Your task to perform on an android device: change the upload size in google photos Image 0: 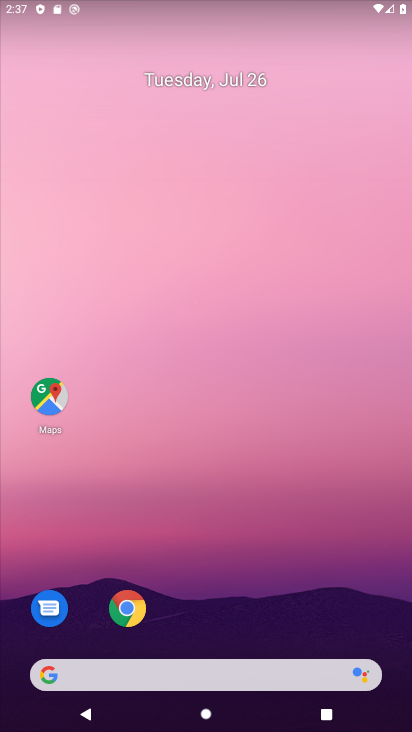
Step 0: drag from (280, 560) to (321, 5)
Your task to perform on an android device: change the upload size in google photos Image 1: 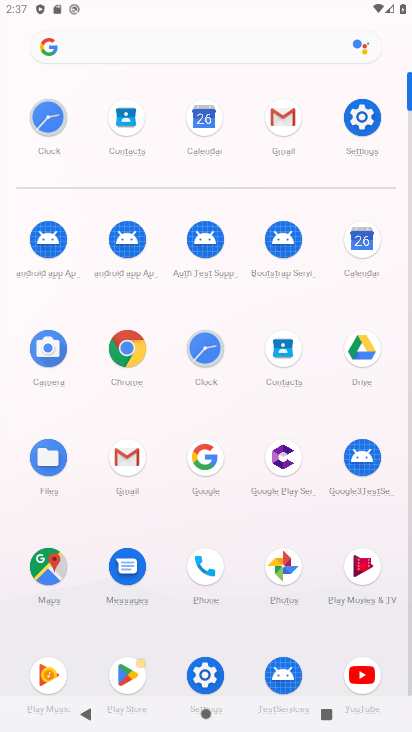
Step 1: click (288, 574)
Your task to perform on an android device: change the upload size in google photos Image 2: 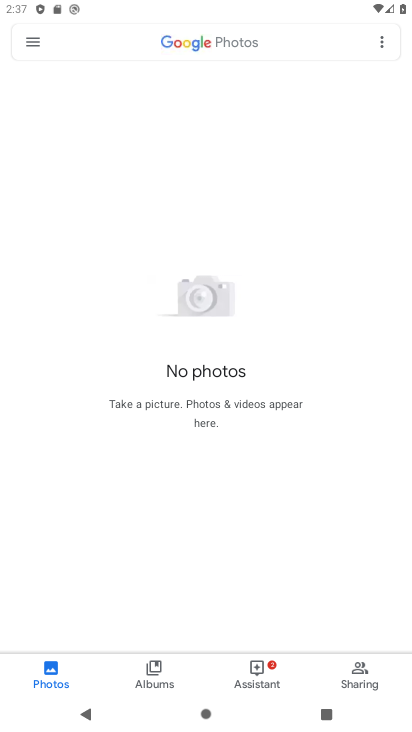
Step 2: task complete